Your task to perform on an android device: turn on the 12-hour format for clock Image 0: 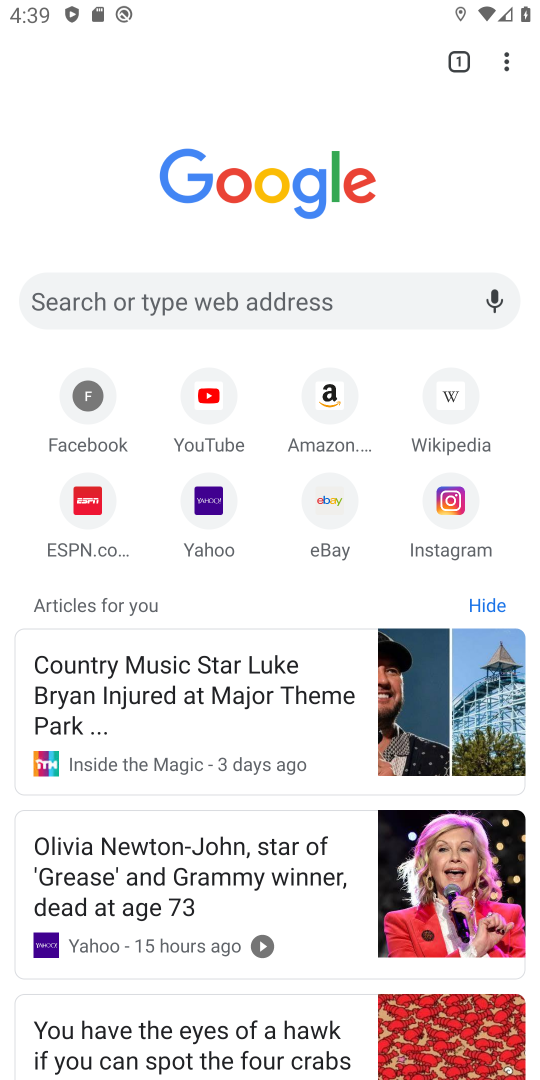
Step 0: click (28, 53)
Your task to perform on an android device: turn on the 12-hour format for clock Image 1: 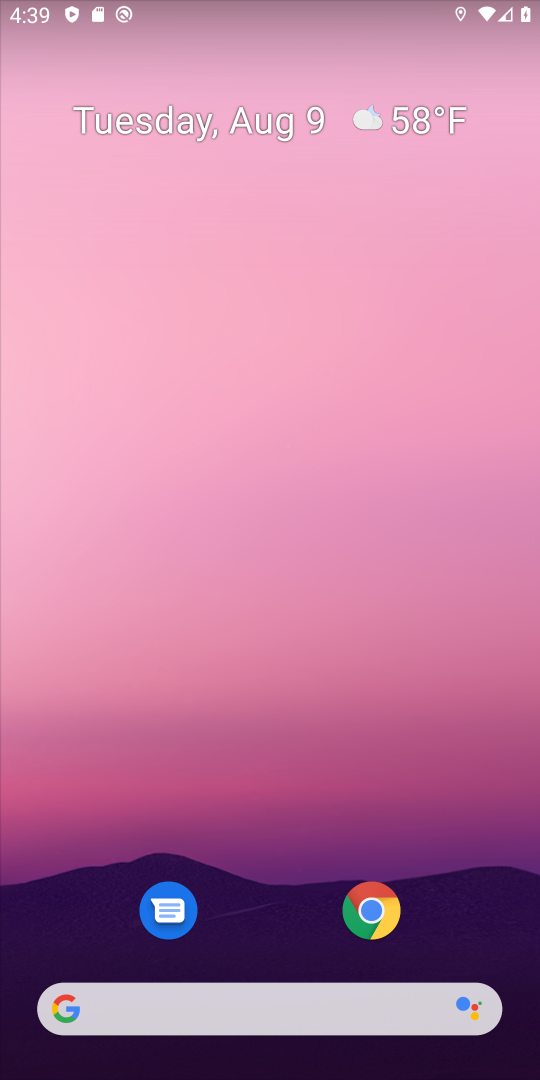
Step 1: drag from (136, 518) to (321, 50)
Your task to perform on an android device: turn on the 12-hour format for clock Image 2: 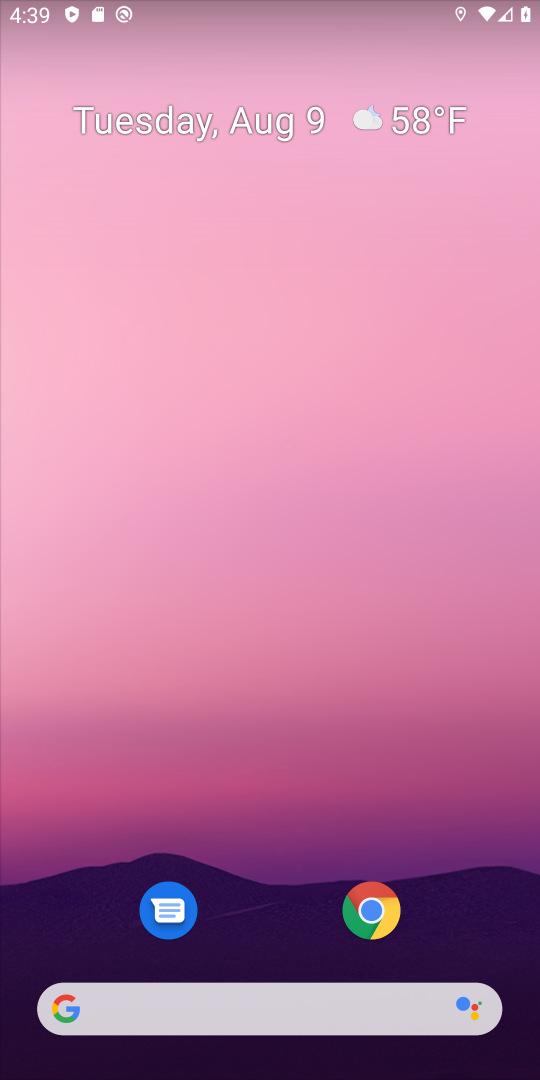
Step 2: drag from (316, 415) to (316, 200)
Your task to perform on an android device: turn on the 12-hour format for clock Image 3: 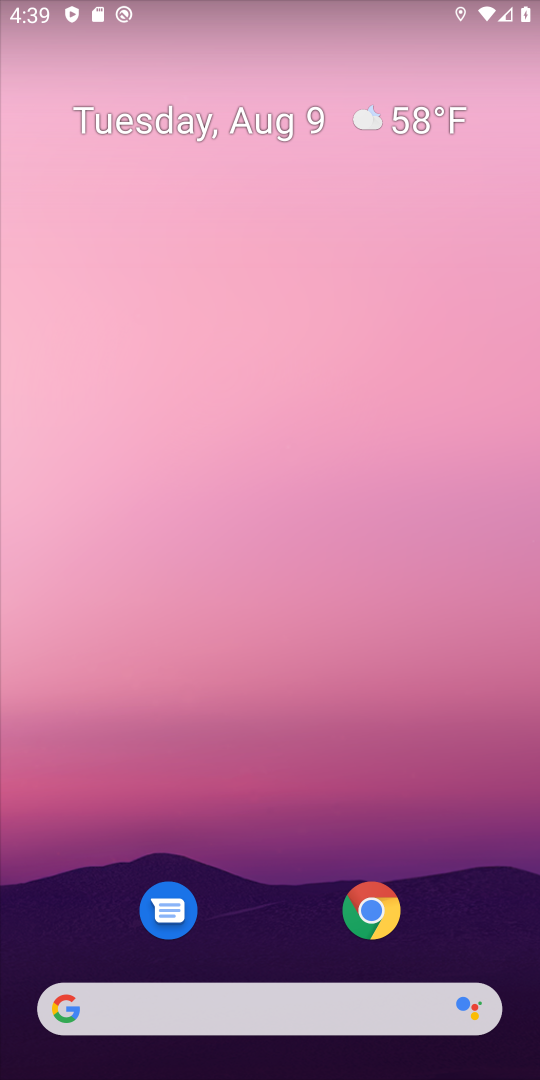
Step 3: drag from (278, 795) to (235, 155)
Your task to perform on an android device: turn on the 12-hour format for clock Image 4: 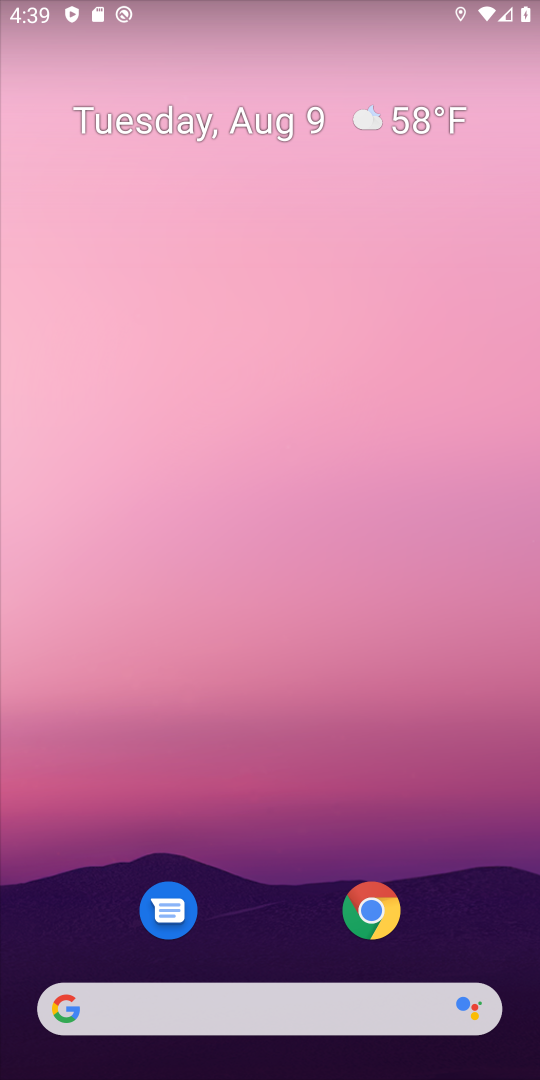
Step 4: drag from (296, 412) to (292, 123)
Your task to perform on an android device: turn on the 12-hour format for clock Image 5: 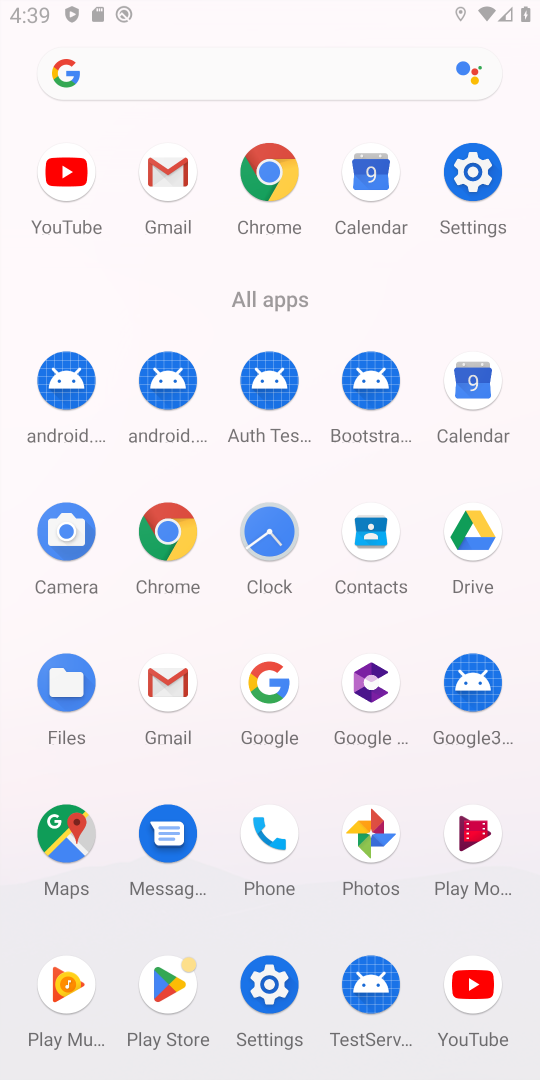
Step 5: drag from (297, 698) to (217, 127)
Your task to perform on an android device: turn on the 12-hour format for clock Image 6: 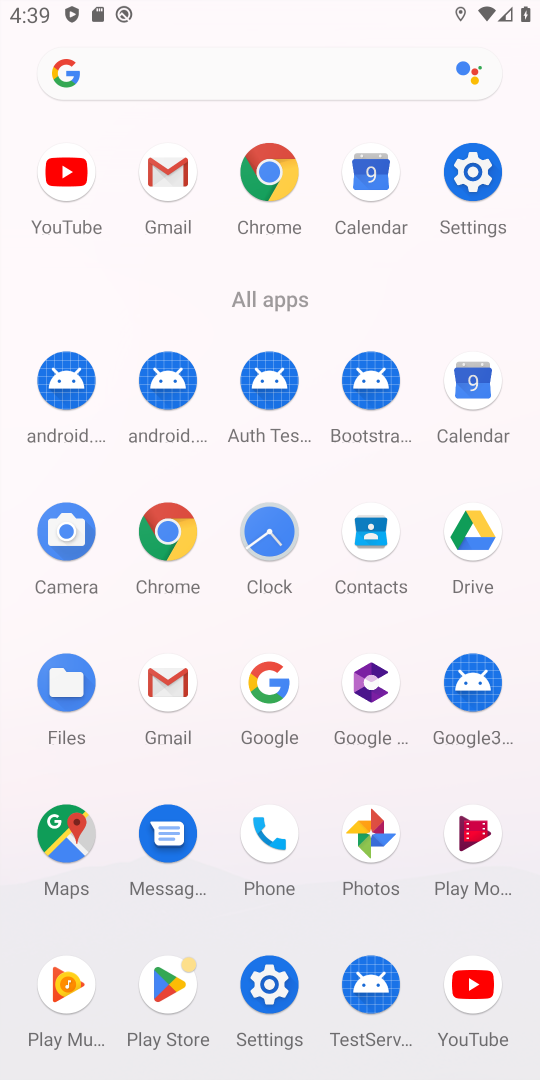
Step 6: click (275, 526)
Your task to perform on an android device: turn on the 12-hour format for clock Image 7: 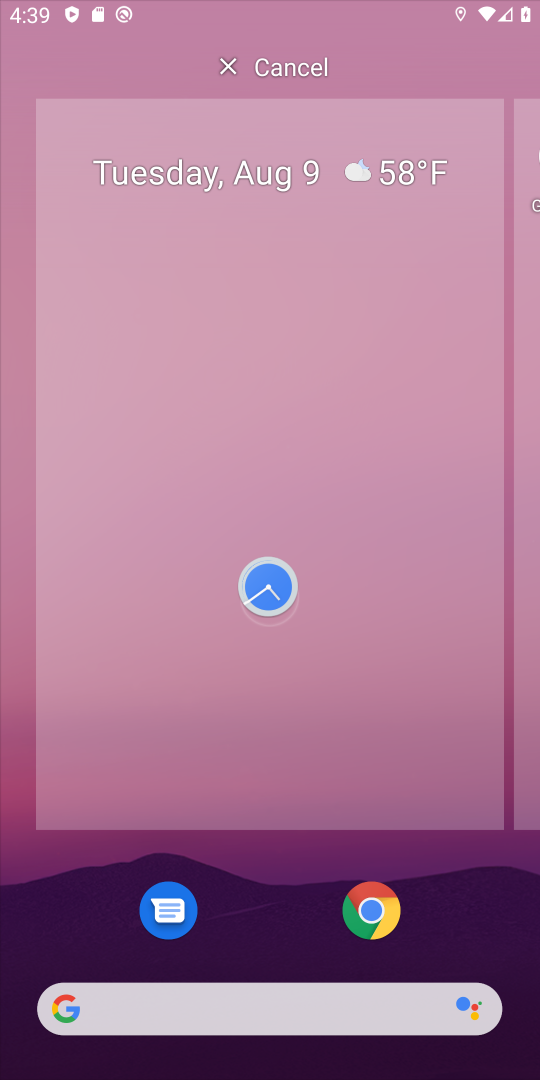
Step 7: drag from (306, 768) to (106, 242)
Your task to perform on an android device: turn on the 12-hour format for clock Image 8: 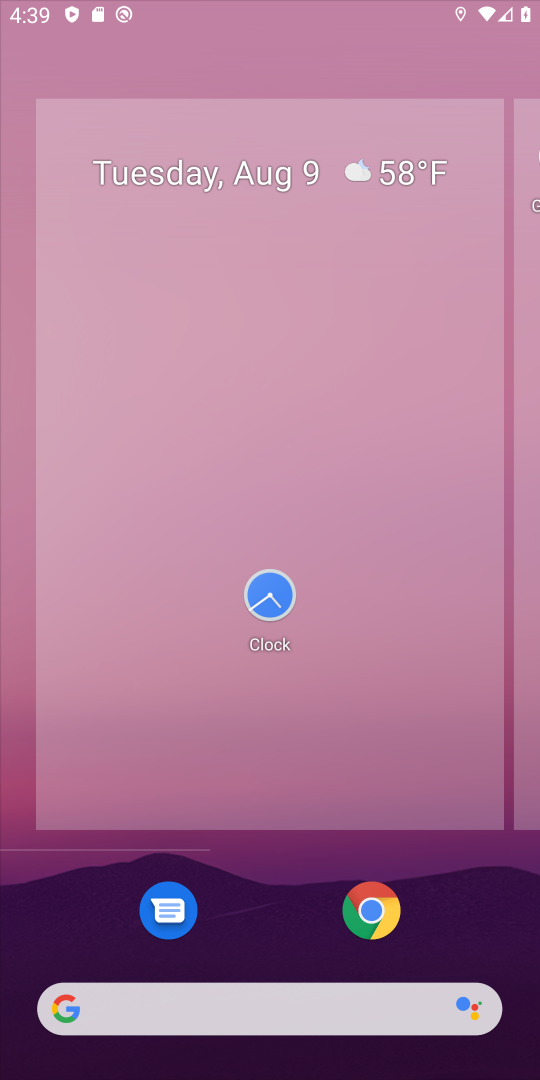
Step 8: drag from (253, 783) to (241, 146)
Your task to perform on an android device: turn on the 12-hour format for clock Image 9: 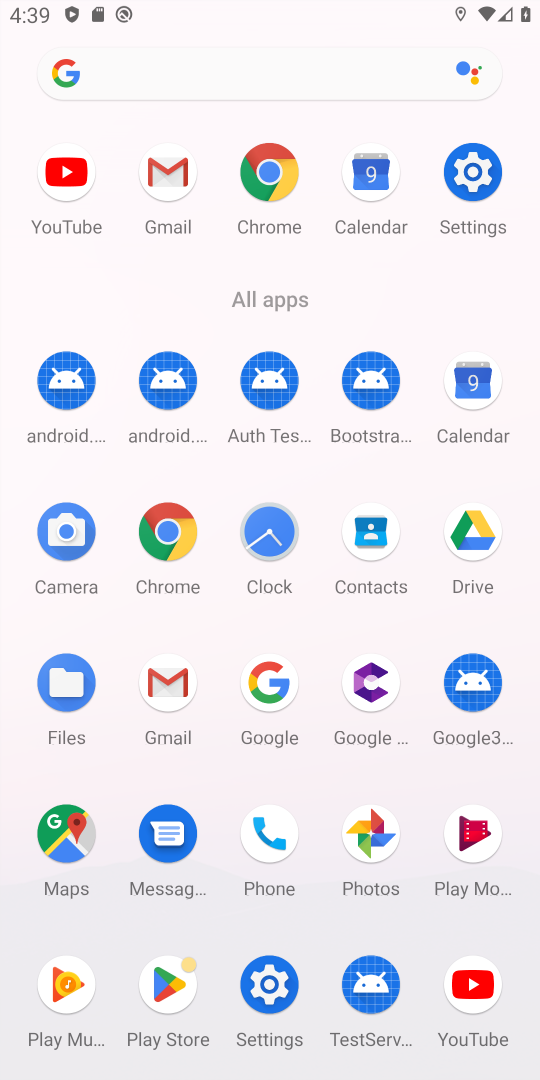
Step 9: click (253, 283)
Your task to perform on an android device: turn on the 12-hour format for clock Image 10: 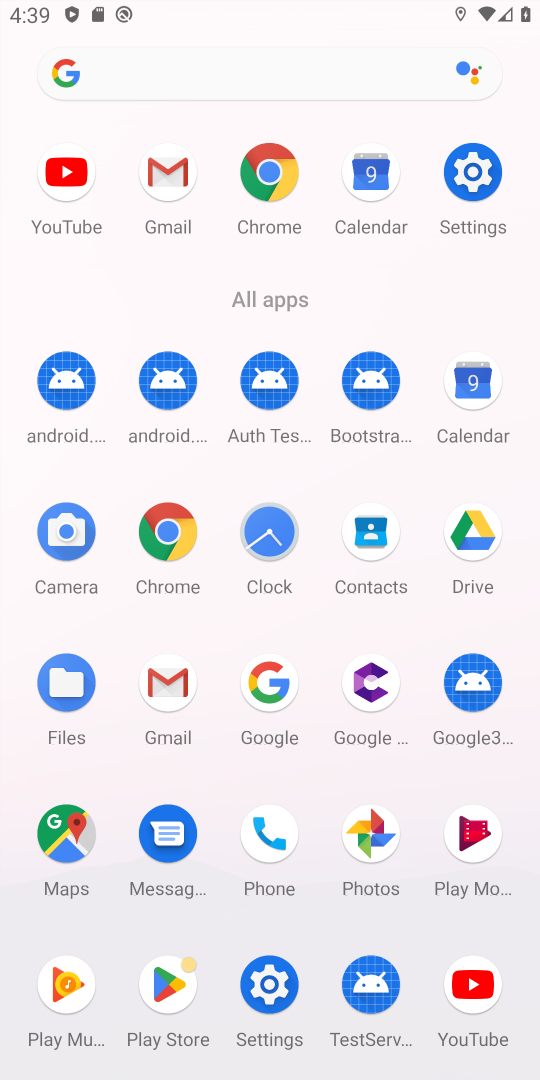
Step 10: click (272, 501)
Your task to perform on an android device: turn on the 12-hour format for clock Image 11: 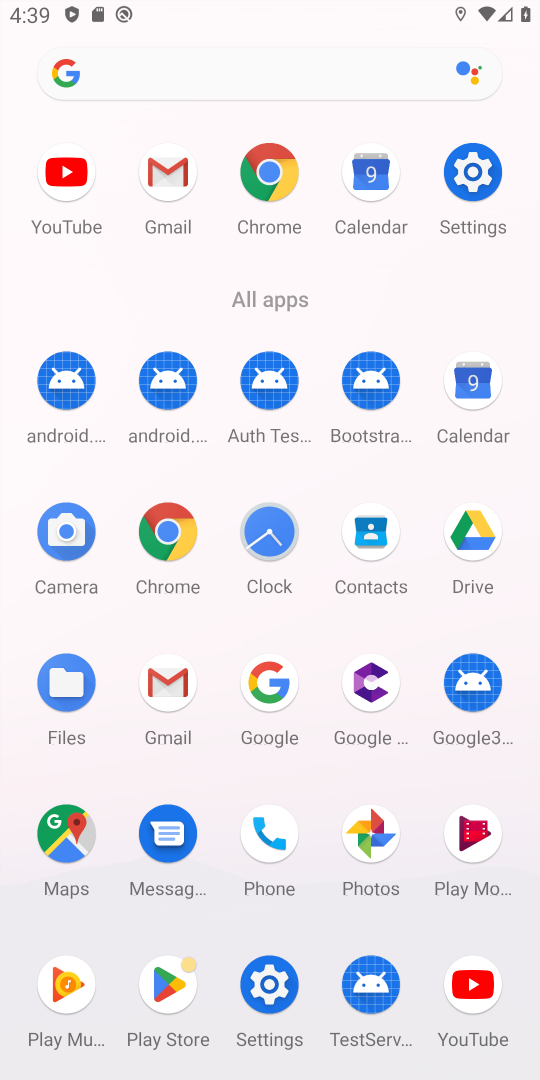
Step 11: click (274, 532)
Your task to perform on an android device: turn on the 12-hour format for clock Image 12: 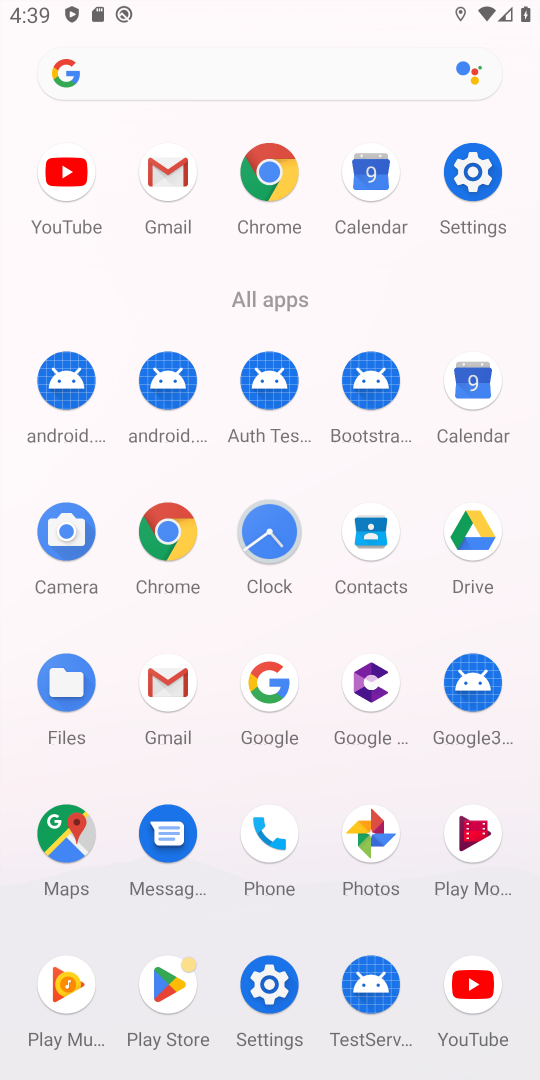
Step 12: click (274, 536)
Your task to perform on an android device: turn on the 12-hour format for clock Image 13: 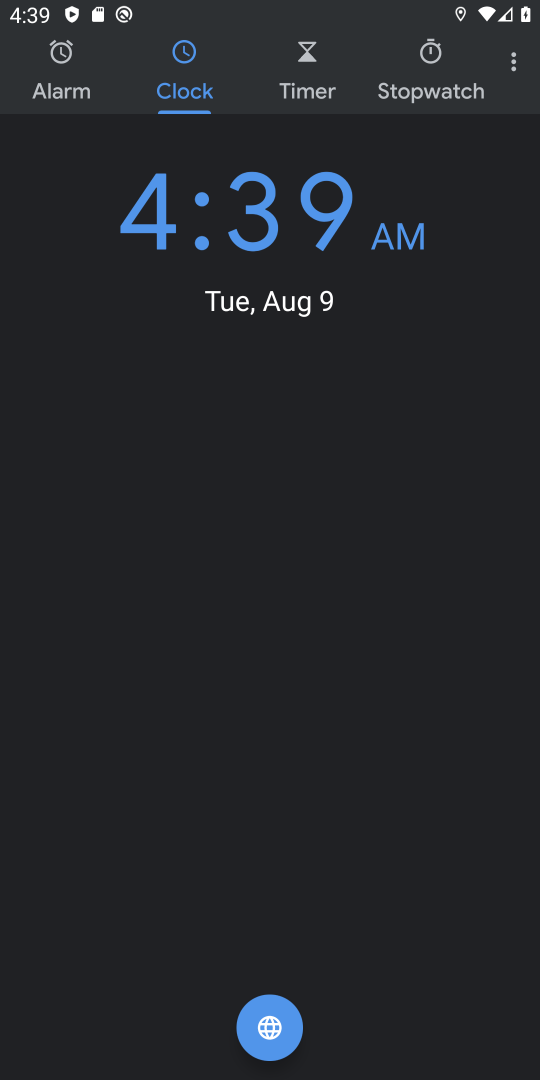
Step 13: click (288, 540)
Your task to perform on an android device: turn on the 12-hour format for clock Image 14: 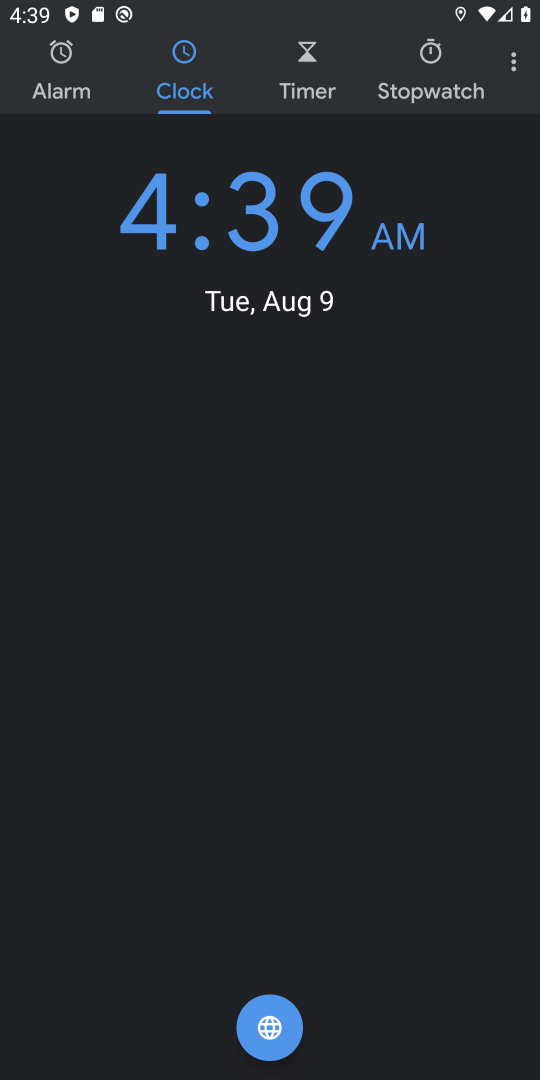
Step 14: click (502, 69)
Your task to perform on an android device: turn on the 12-hour format for clock Image 15: 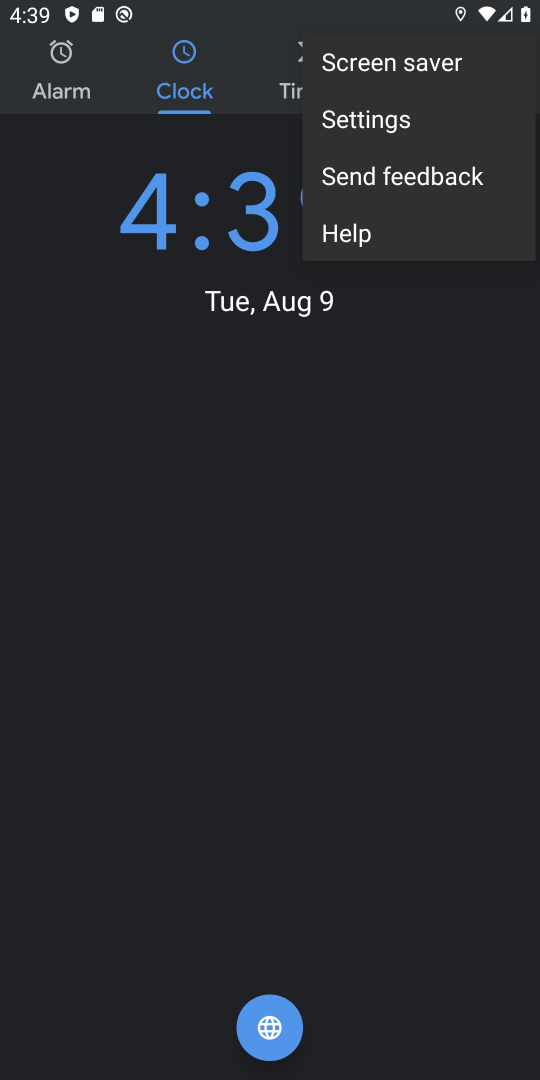
Step 15: click (372, 123)
Your task to perform on an android device: turn on the 12-hour format for clock Image 16: 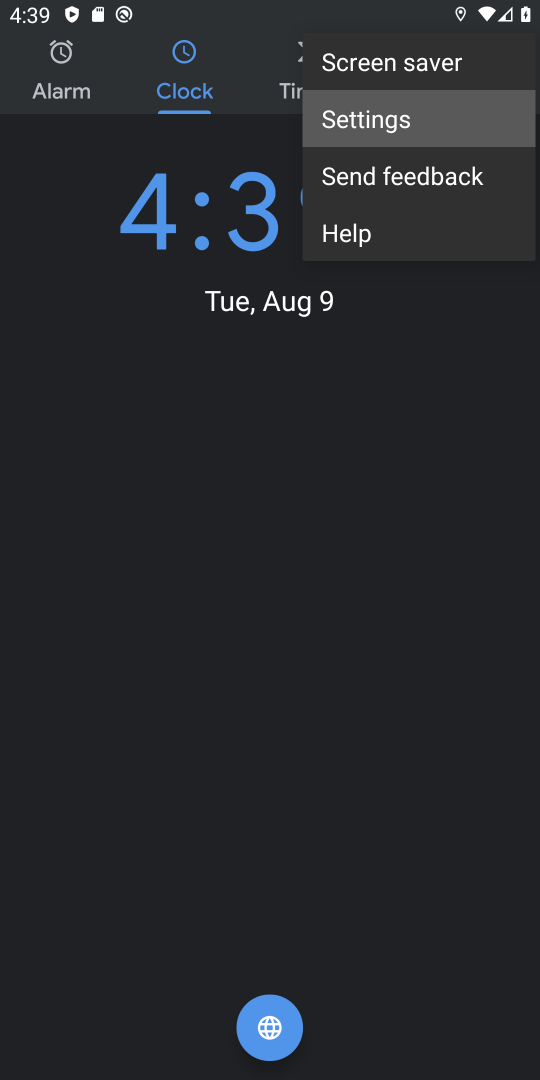
Step 16: click (374, 137)
Your task to perform on an android device: turn on the 12-hour format for clock Image 17: 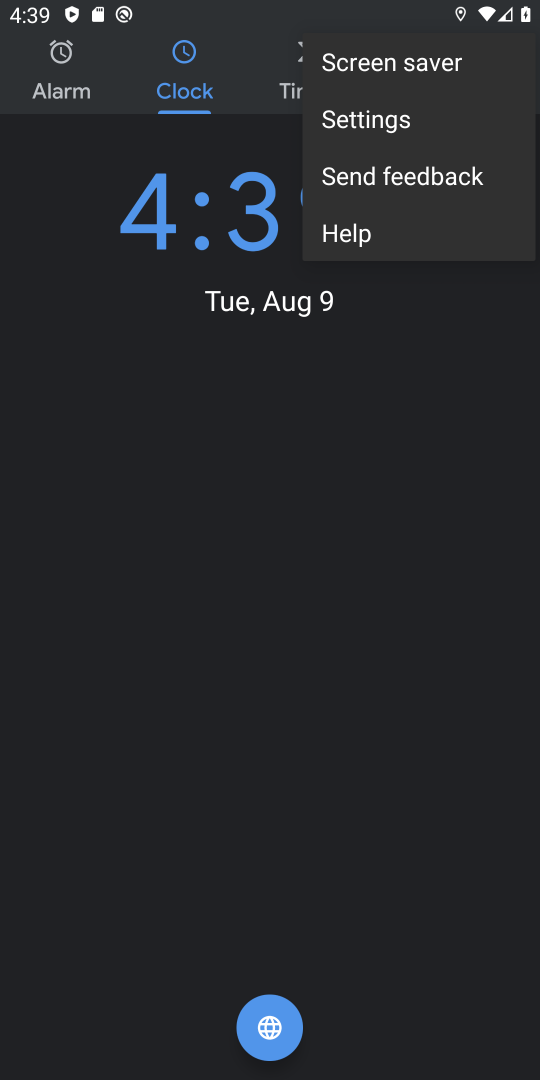
Step 17: click (376, 137)
Your task to perform on an android device: turn on the 12-hour format for clock Image 18: 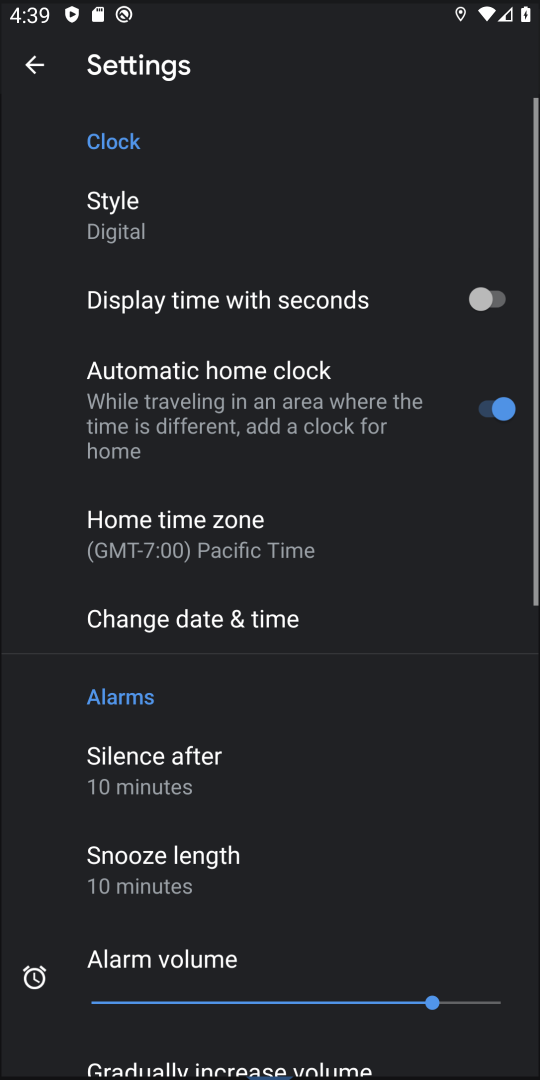
Step 18: click (377, 139)
Your task to perform on an android device: turn on the 12-hour format for clock Image 19: 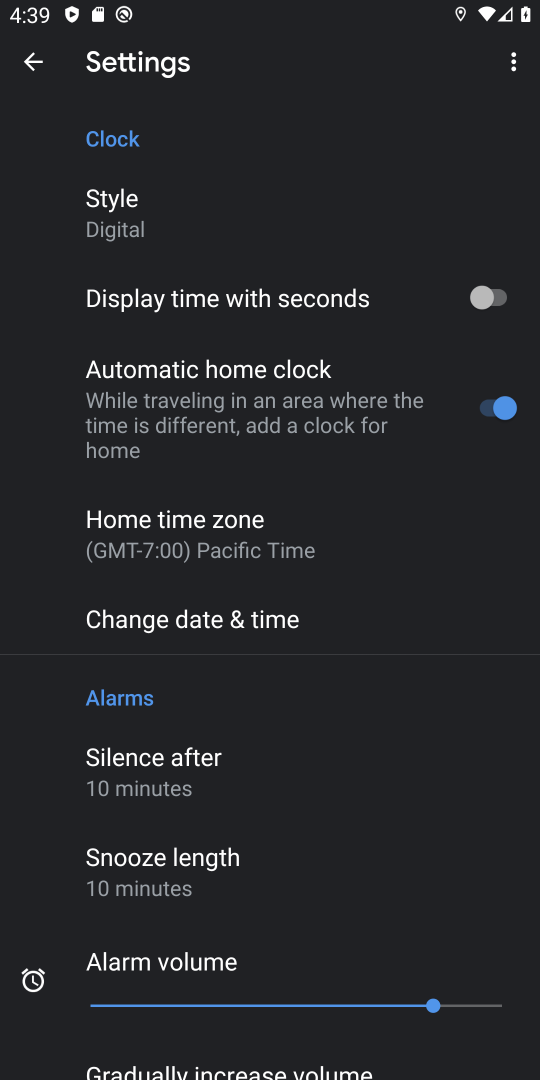
Step 19: click (200, 608)
Your task to perform on an android device: turn on the 12-hour format for clock Image 20: 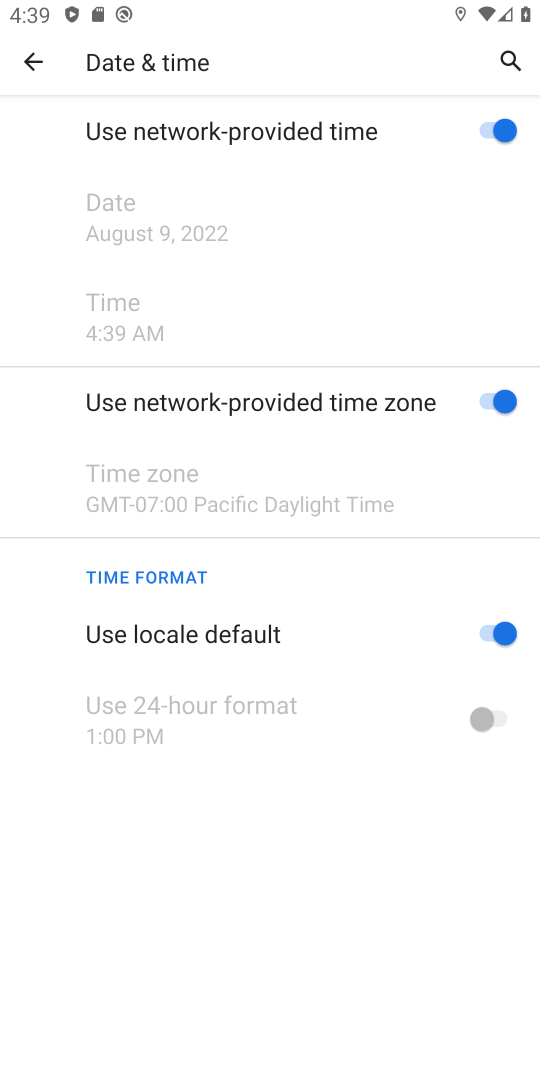
Step 20: task complete